Your task to perform on an android device: Show me popular games on the Play Store Image 0: 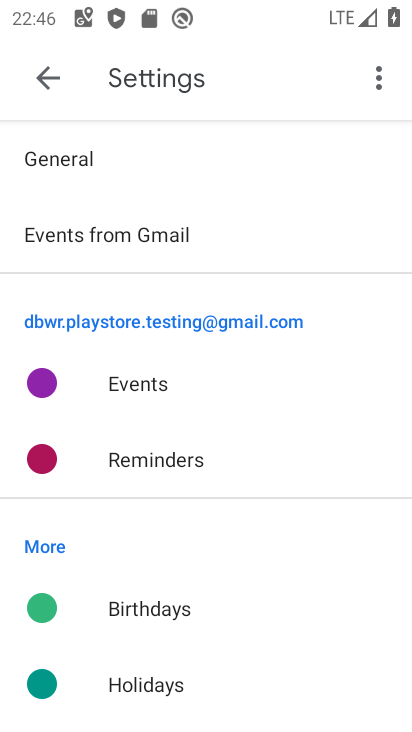
Step 0: press home button
Your task to perform on an android device: Show me popular games on the Play Store Image 1: 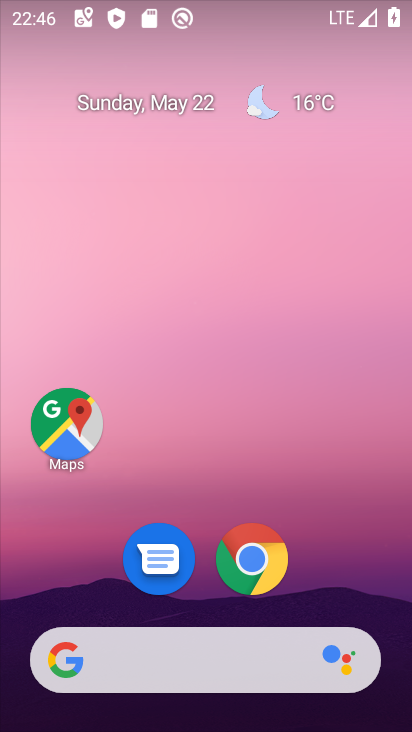
Step 1: drag from (252, 701) to (239, 328)
Your task to perform on an android device: Show me popular games on the Play Store Image 2: 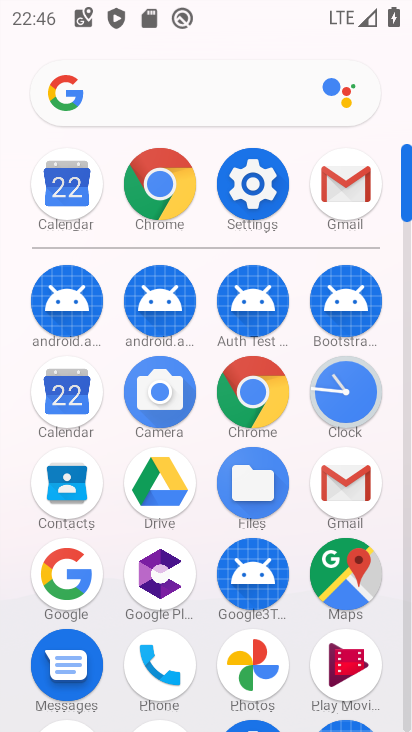
Step 2: drag from (201, 525) to (177, 334)
Your task to perform on an android device: Show me popular games on the Play Store Image 3: 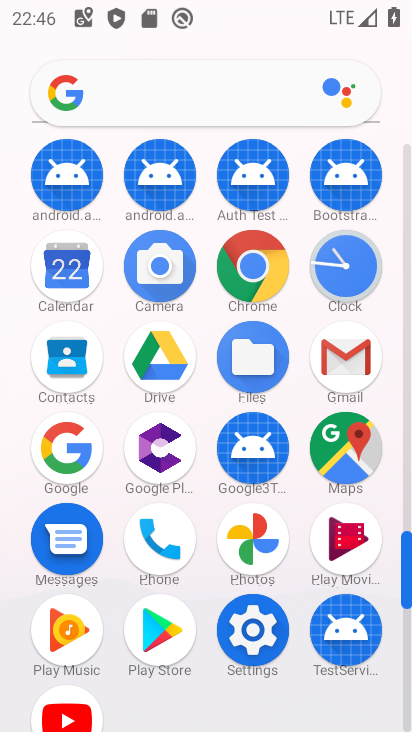
Step 3: click (170, 636)
Your task to perform on an android device: Show me popular games on the Play Store Image 4: 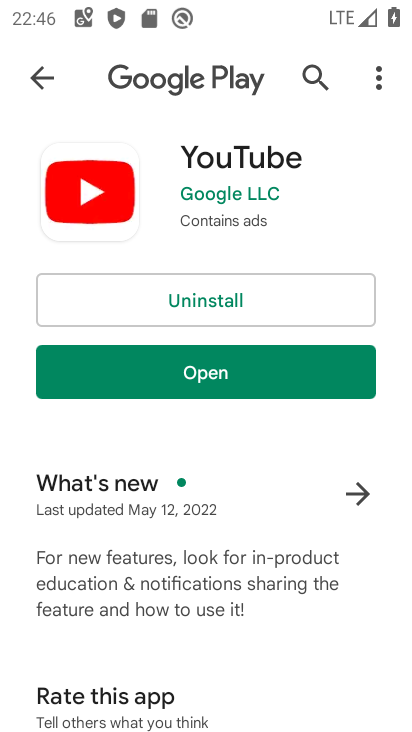
Step 4: click (293, 66)
Your task to perform on an android device: Show me popular games on the Play Store Image 5: 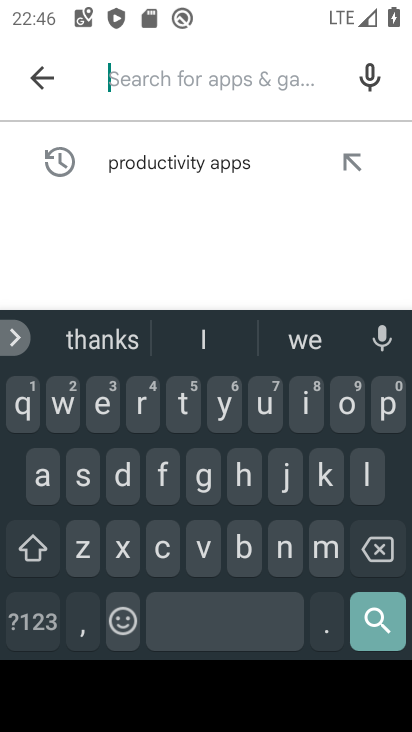
Step 5: click (390, 398)
Your task to perform on an android device: Show me popular games on the Play Store Image 6: 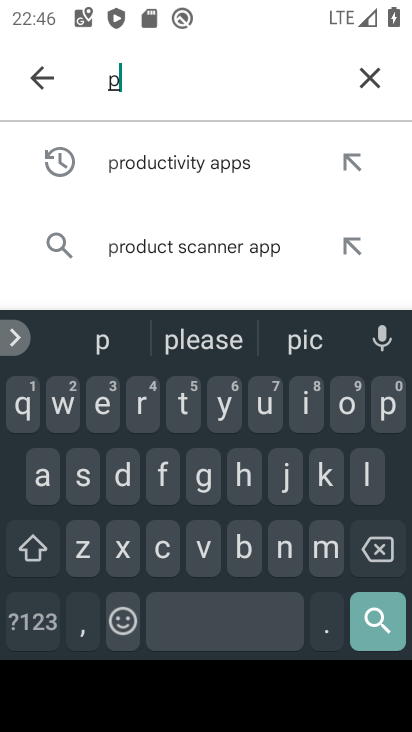
Step 6: click (344, 408)
Your task to perform on an android device: Show me popular games on the Play Store Image 7: 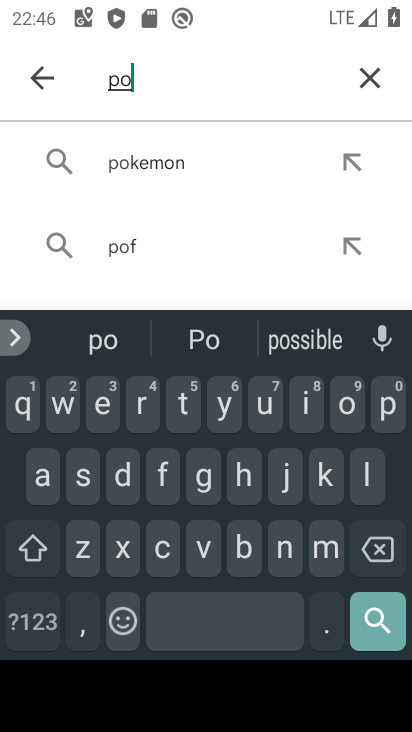
Step 7: click (383, 411)
Your task to perform on an android device: Show me popular games on the Play Store Image 8: 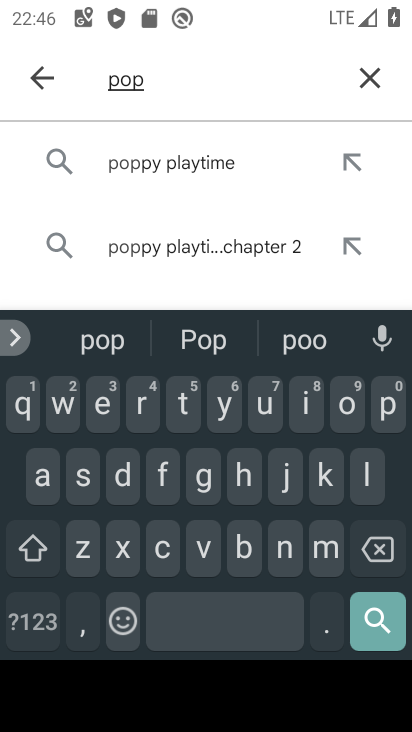
Step 8: click (260, 412)
Your task to perform on an android device: Show me popular games on the Play Store Image 9: 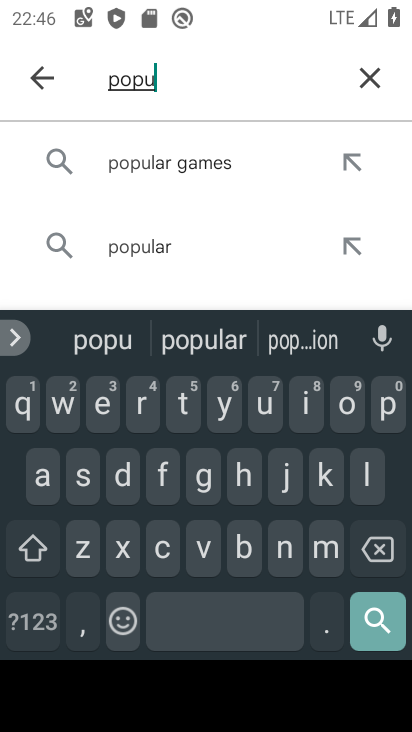
Step 9: click (162, 174)
Your task to perform on an android device: Show me popular games on the Play Store Image 10: 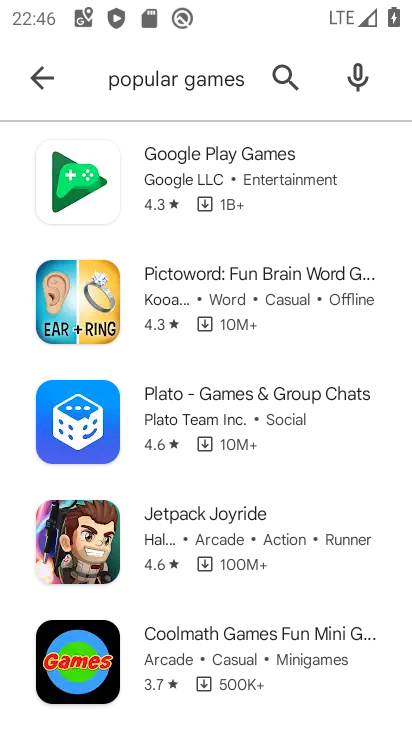
Step 10: task complete